Your task to perform on an android device: Go to calendar. Show me events next week Image 0: 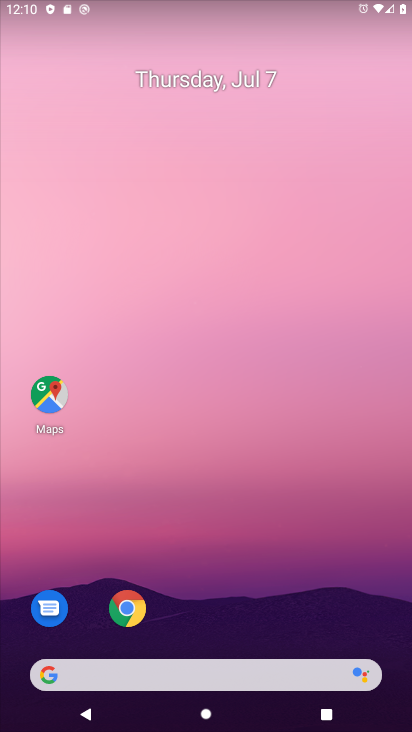
Step 0: click (263, 86)
Your task to perform on an android device: Go to calendar. Show me events next week Image 1: 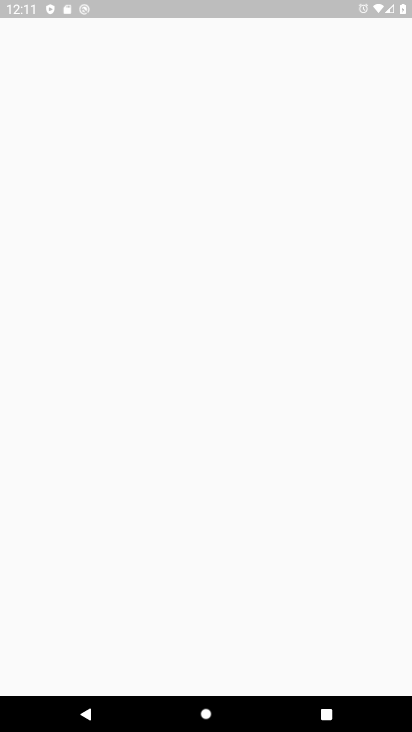
Step 1: press back button
Your task to perform on an android device: Go to calendar. Show me events next week Image 2: 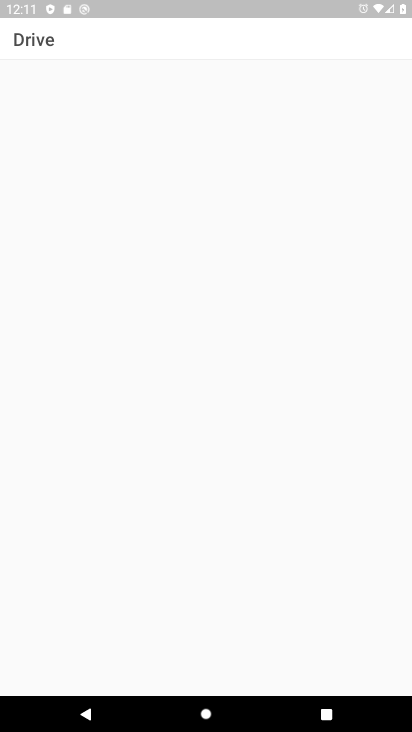
Step 2: press back button
Your task to perform on an android device: Go to calendar. Show me events next week Image 3: 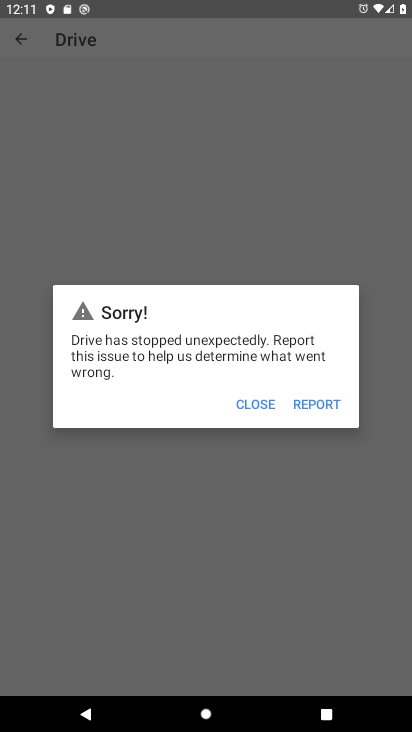
Step 3: press home button
Your task to perform on an android device: Go to calendar. Show me events next week Image 4: 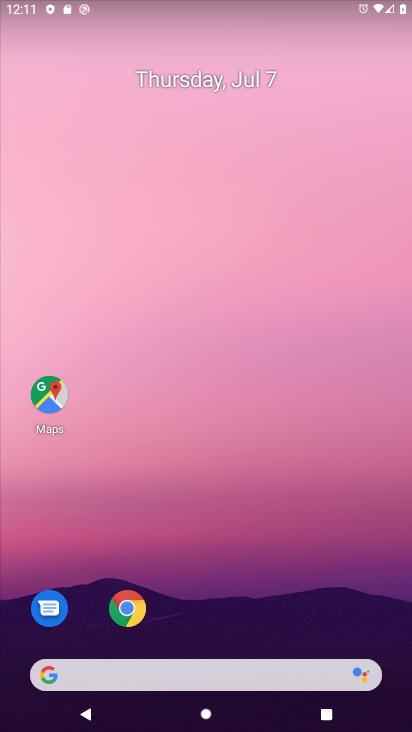
Step 4: drag from (194, 605) to (221, 13)
Your task to perform on an android device: Go to calendar. Show me events next week Image 5: 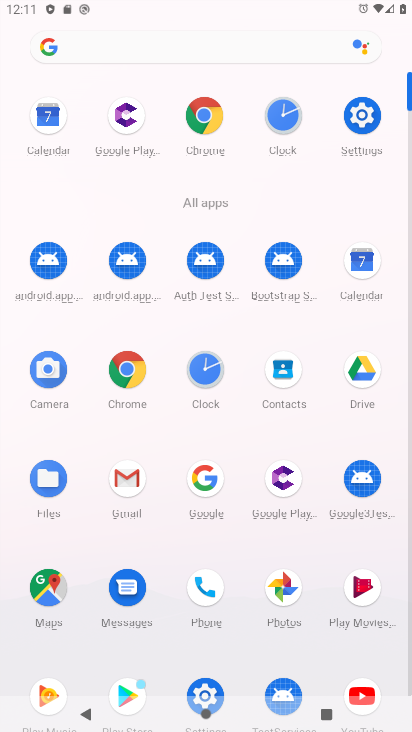
Step 5: click (40, 117)
Your task to perform on an android device: Go to calendar. Show me events next week Image 6: 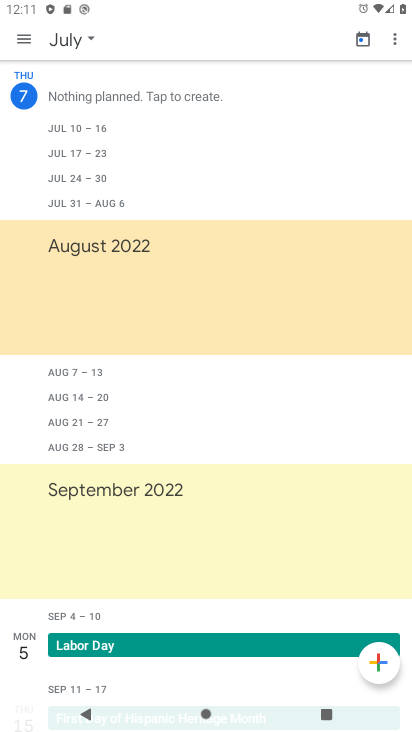
Step 6: click (82, 146)
Your task to perform on an android device: Go to calendar. Show me events next week Image 7: 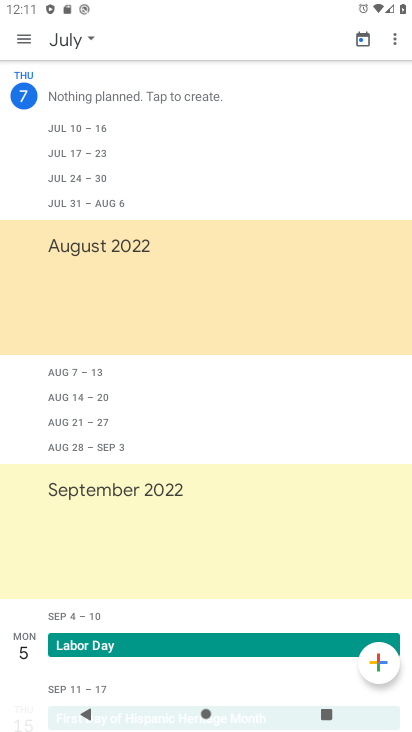
Step 7: click (82, 129)
Your task to perform on an android device: Go to calendar. Show me events next week Image 8: 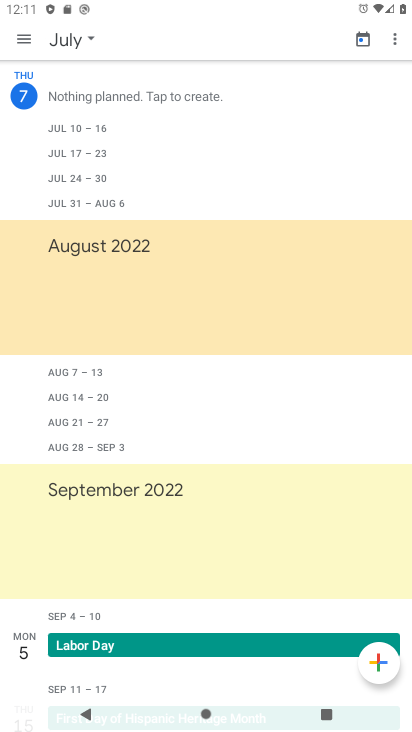
Step 8: task complete